Your task to perform on an android device: Go to calendar. Show me events next week Image 0: 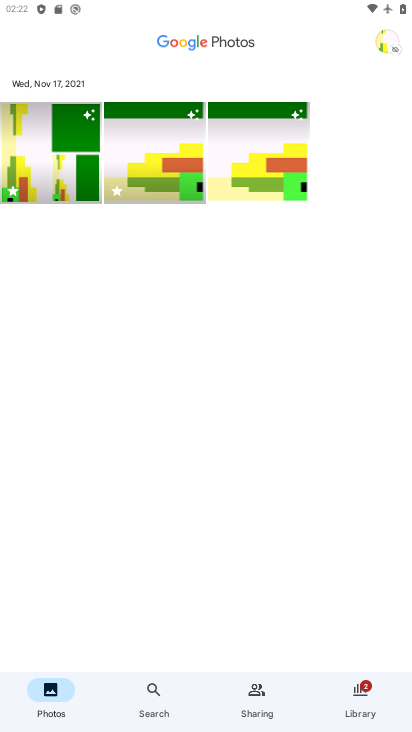
Step 0: press home button
Your task to perform on an android device: Go to calendar. Show me events next week Image 1: 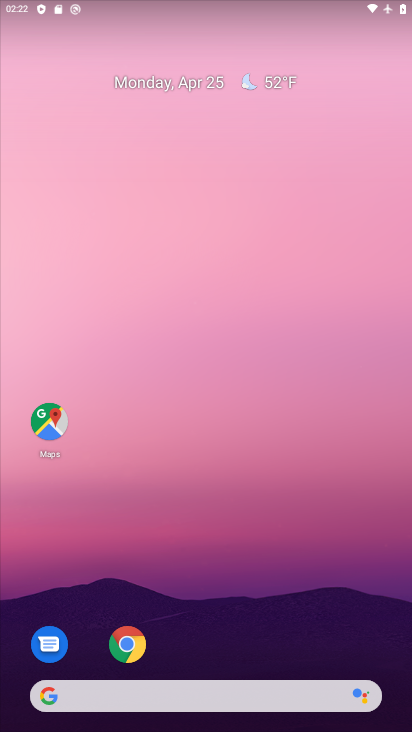
Step 1: drag from (231, 622) to (240, 33)
Your task to perform on an android device: Go to calendar. Show me events next week Image 2: 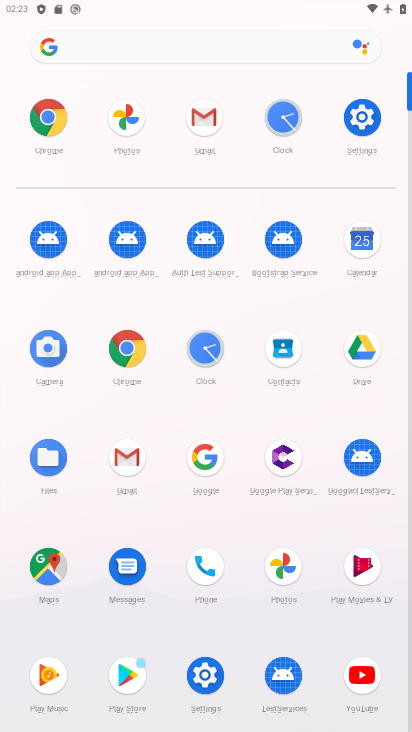
Step 2: click (268, 354)
Your task to perform on an android device: Go to calendar. Show me events next week Image 3: 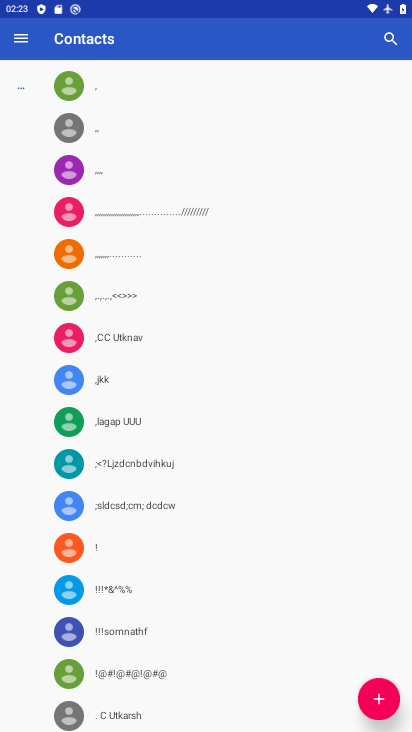
Step 3: press home button
Your task to perform on an android device: Go to calendar. Show me events next week Image 4: 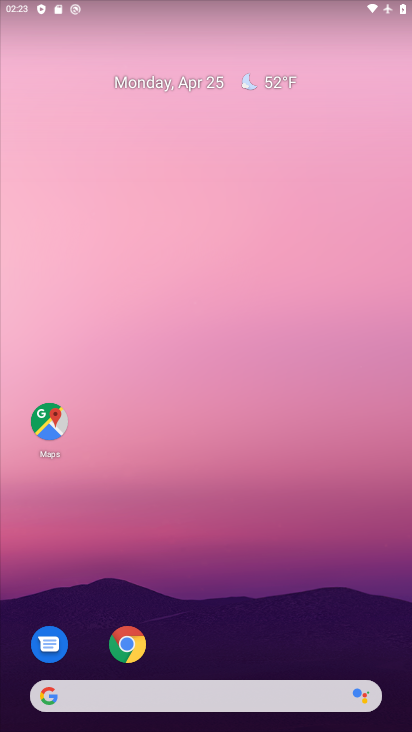
Step 4: drag from (273, 636) to (255, 32)
Your task to perform on an android device: Go to calendar. Show me events next week Image 5: 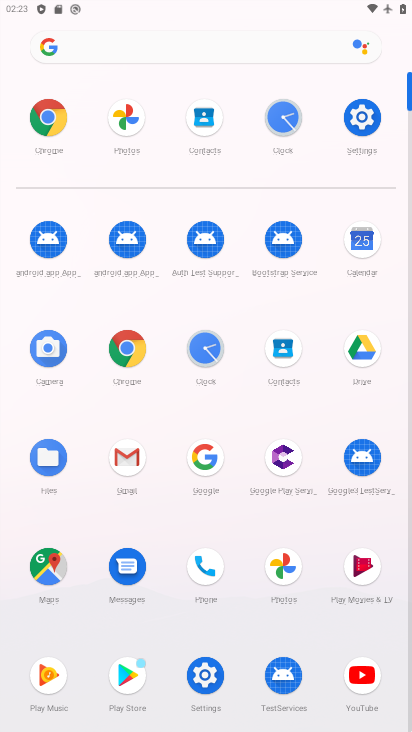
Step 5: click (370, 243)
Your task to perform on an android device: Go to calendar. Show me events next week Image 6: 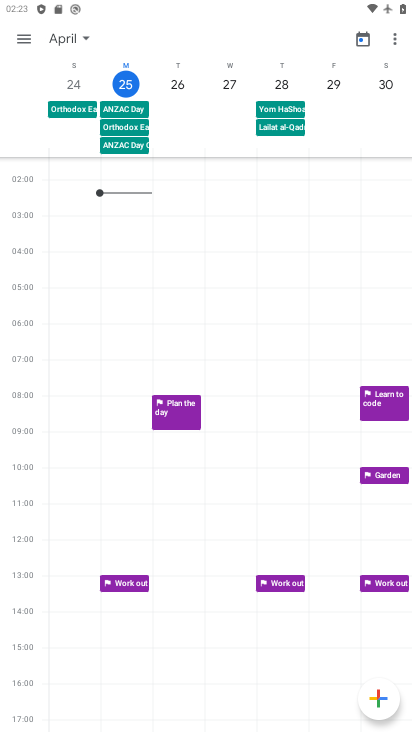
Step 6: click (69, 36)
Your task to perform on an android device: Go to calendar. Show me events next week Image 7: 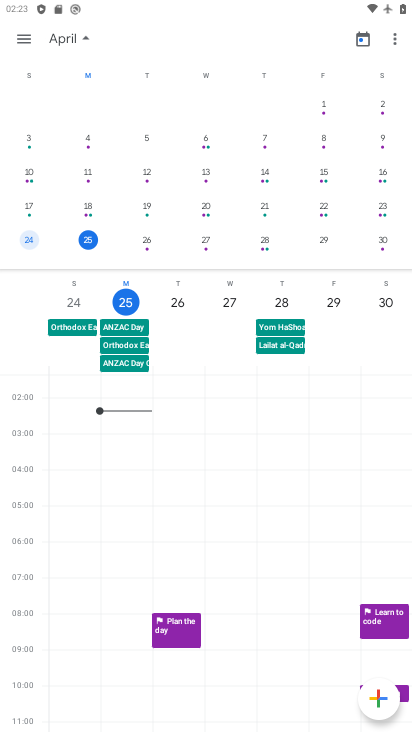
Step 7: drag from (385, 197) to (96, 171)
Your task to perform on an android device: Go to calendar. Show me events next week Image 8: 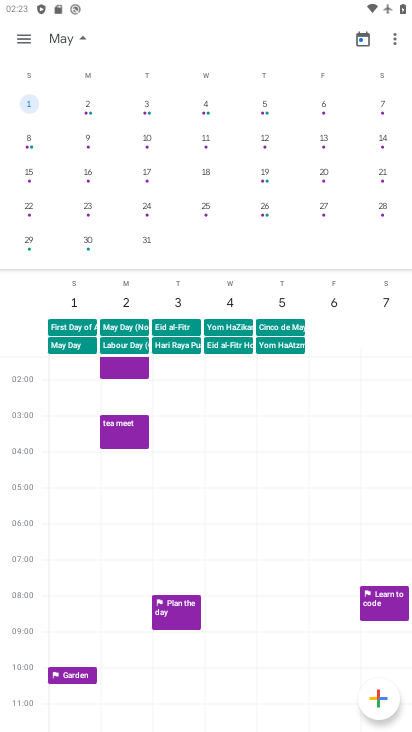
Step 8: click (149, 106)
Your task to perform on an android device: Go to calendar. Show me events next week Image 9: 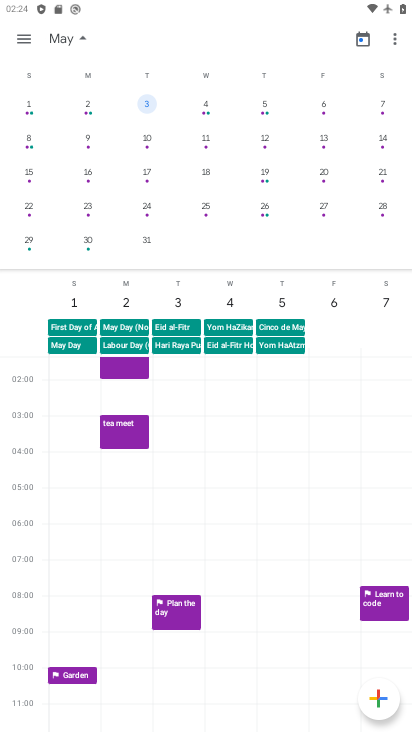
Step 9: task complete